Your task to perform on an android device: add a contact in the contacts app Image 0: 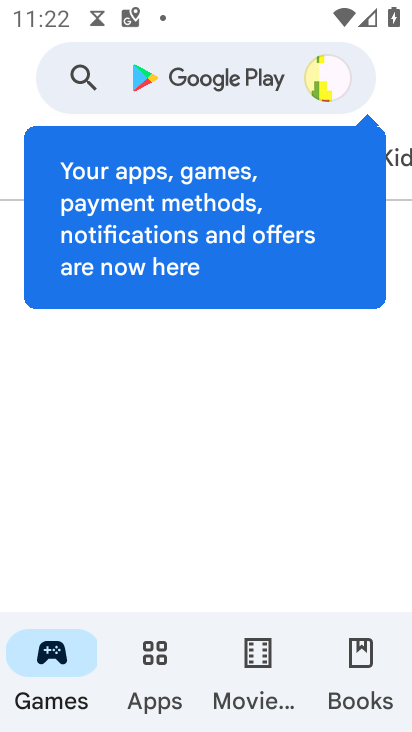
Step 0: press home button
Your task to perform on an android device: add a contact in the contacts app Image 1: 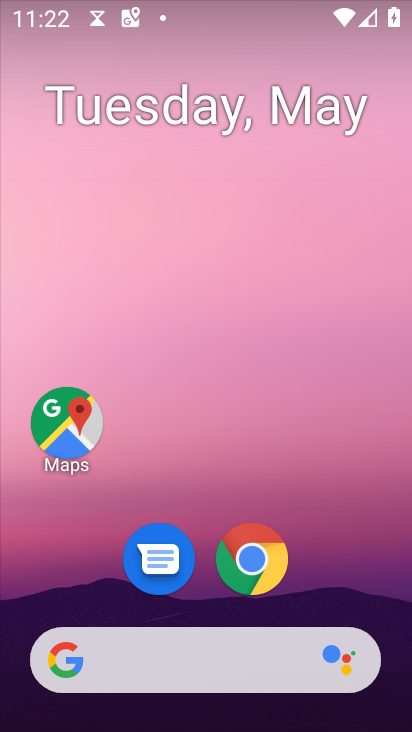
Step 1: drag from (319, 616) to (365, 150)
Your task to perform on an android device: add a contact in the contacts app Image 2: 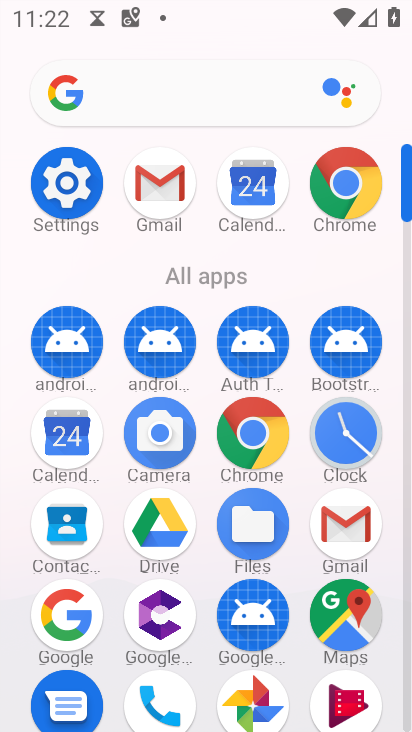
Step 2: click (147, 691)
Your task to perform on an android device: add a contact in the contacts app Image 3: 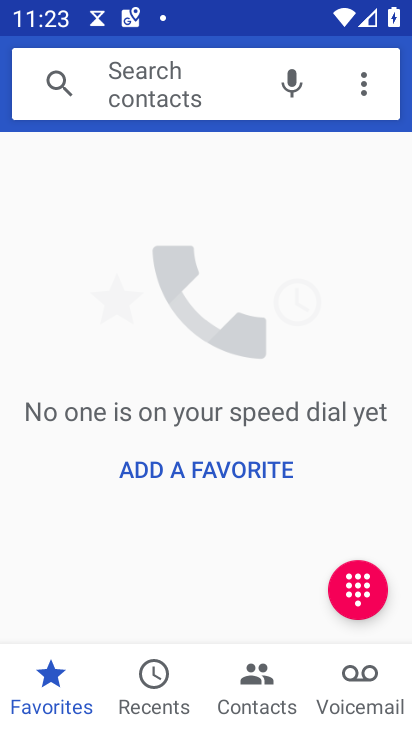
Step 3: click (252, 694)
Your task to perform on an android device: add a contact in the contacts app Image 4: 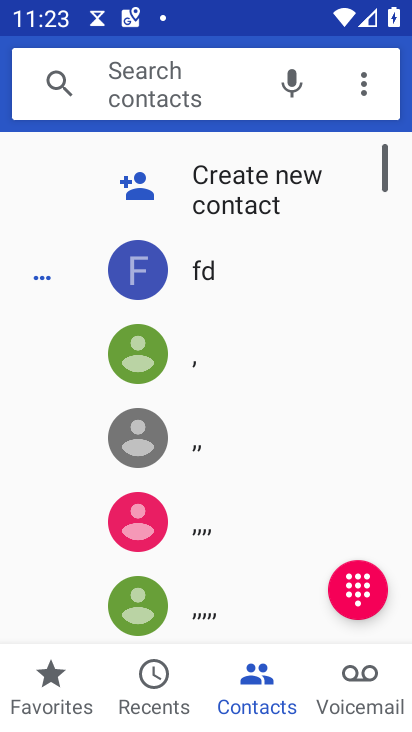
Step 4: click (176, 181)
Your task to perform on an android device: add a contact in the contacts app Image 5: 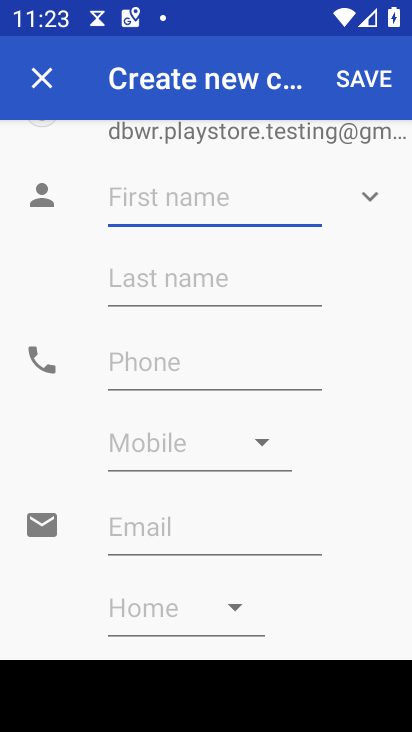
Step 5: click (188, 195)
Your task to perform on an android device: add a contact in the contacts app Image 6: 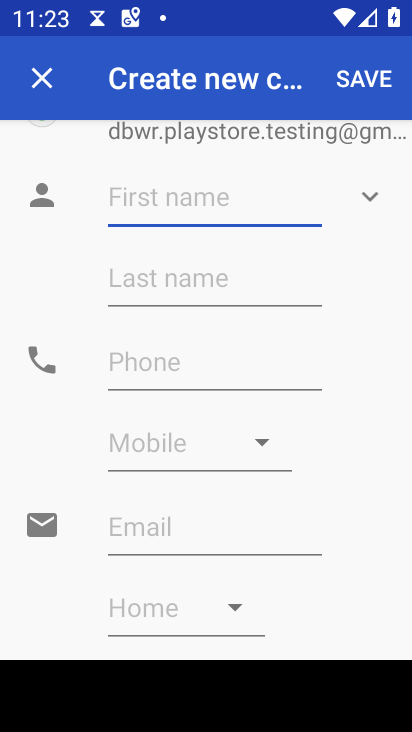
Step 6: type "etete"
Your task to perform on an android device: add a contact in the contacts app Image 7: 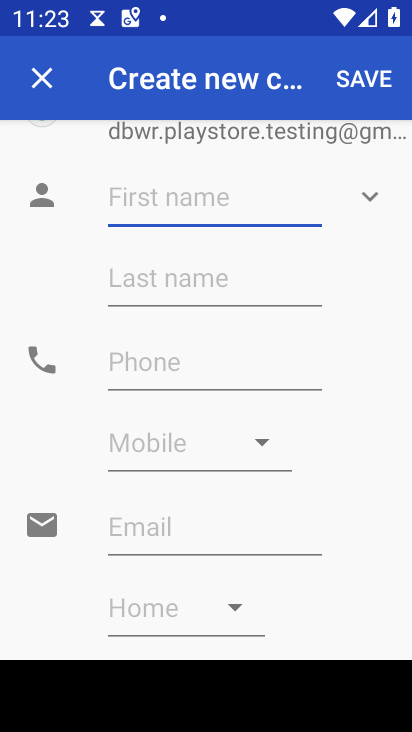
Step 7: click (201, 370)
Your task to perform on an android device: add a contact in the contacts app Image 8: 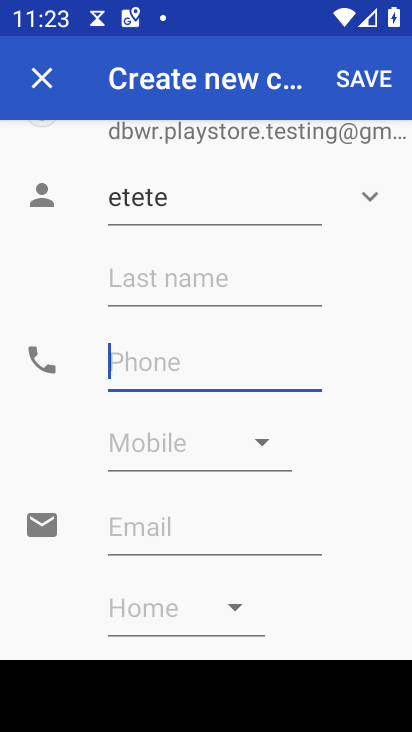
Step 8: type "536363773"
Your task to perform on an android device: add a contact in the contacts app Image 9: 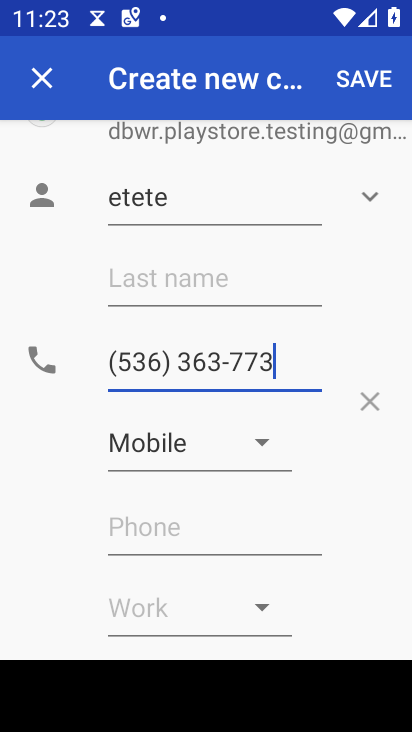
Step 9: click (363, 78)
Your task to perform on an android device: add a contact in the contacts app Image 10: 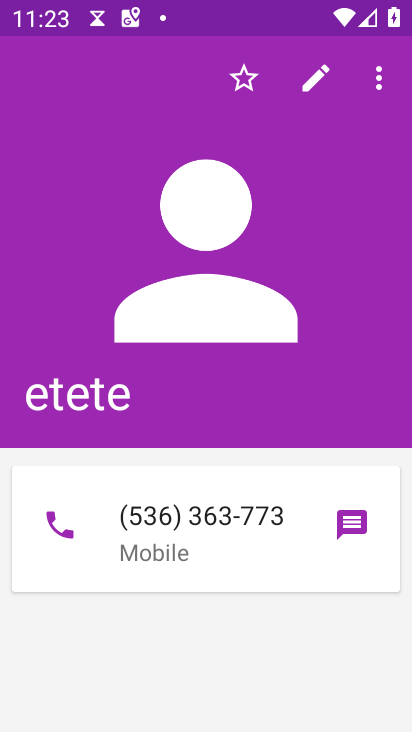
Step 10: task complete